Your task to perform on an android device: Go to network settings Image 0: 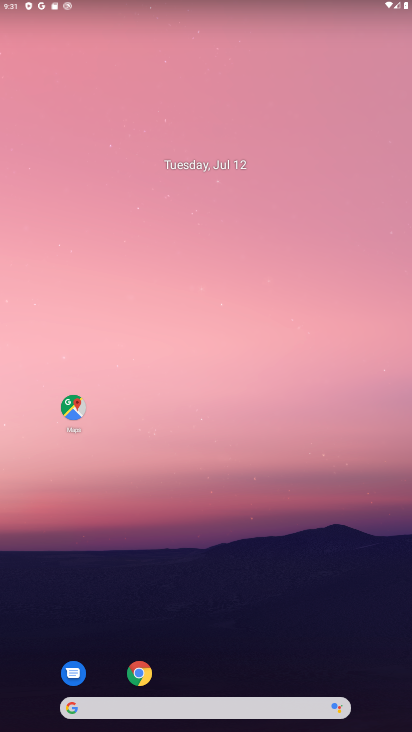
Step 0: drag from (240, 608) to (179, 10)
Your task to perform on an android device: Go to network settings Image 1: 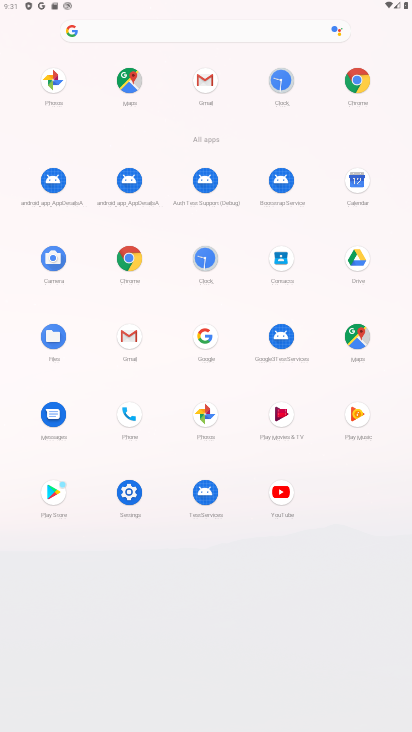
Step 1: click (134, 507)
Your task to perform on an android device: Go to network settings Image 2: 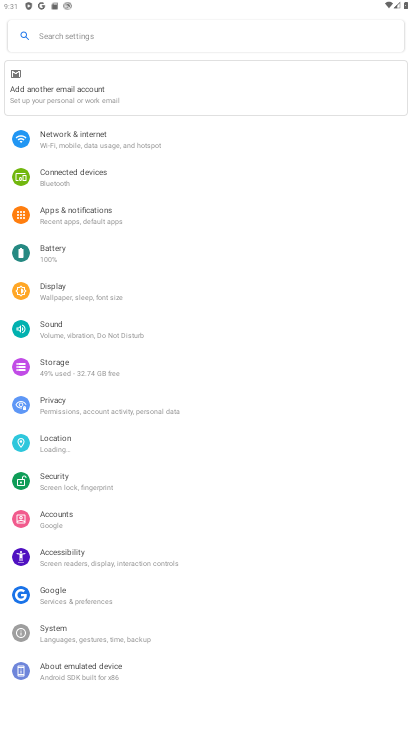
Step 2: click (136, 135)
Your task to perform on an android device: Go to network settings Image 3: 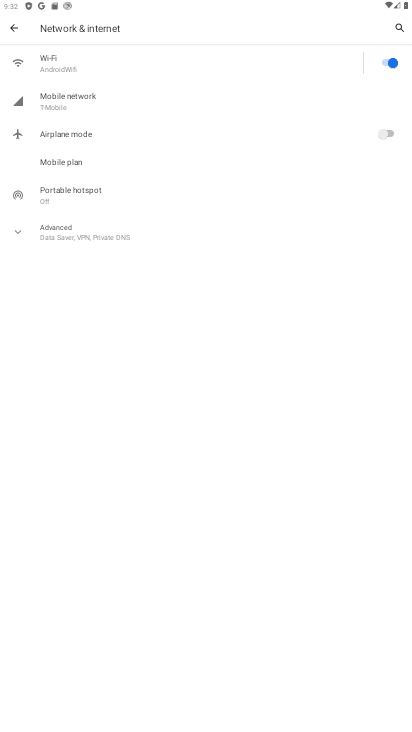
Step 3: task complete